Your task to perform on an android device: Open maps Image 0: 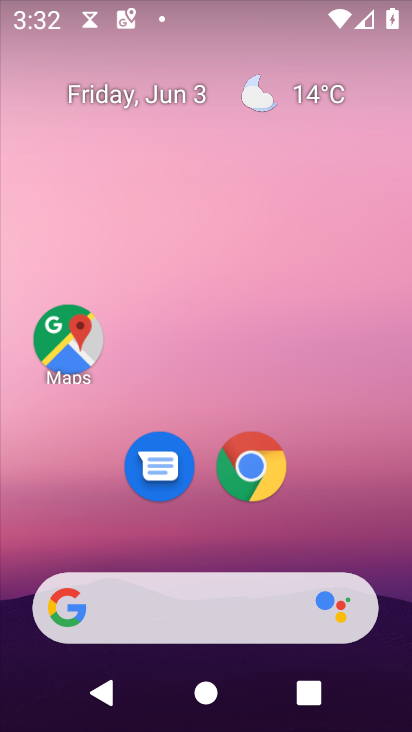
Step 0: click (60, 341)
Your task to perform on an android device: Open maps Image 1: 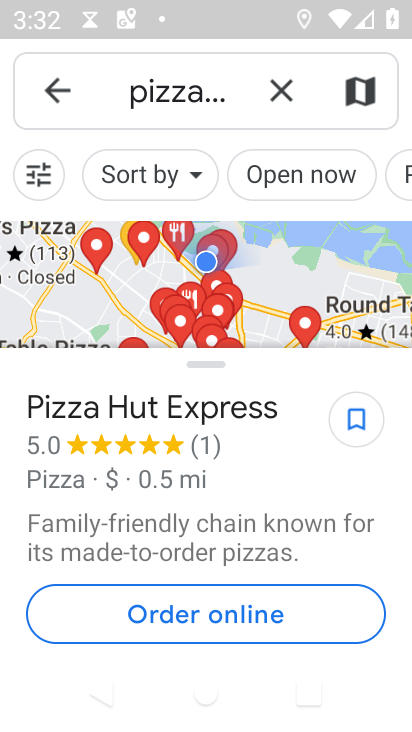
Step 1: task complete